Your task to perform on an android device: Open Maps and search for coffee Image 0: 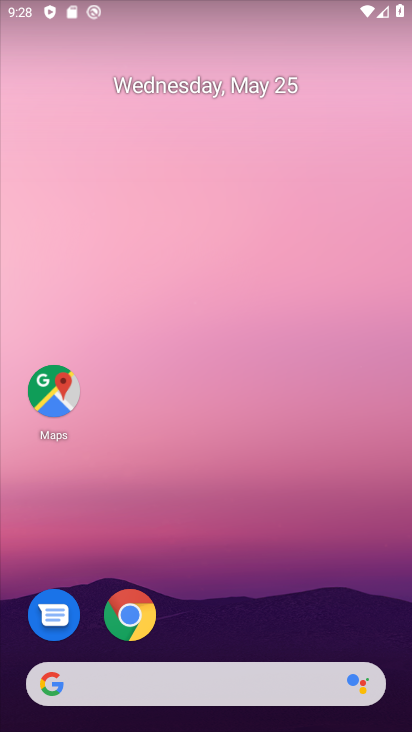
Step 0: click (37, 387)
Your task to perform on an android device: Open Maps and search for coffee Image 1: 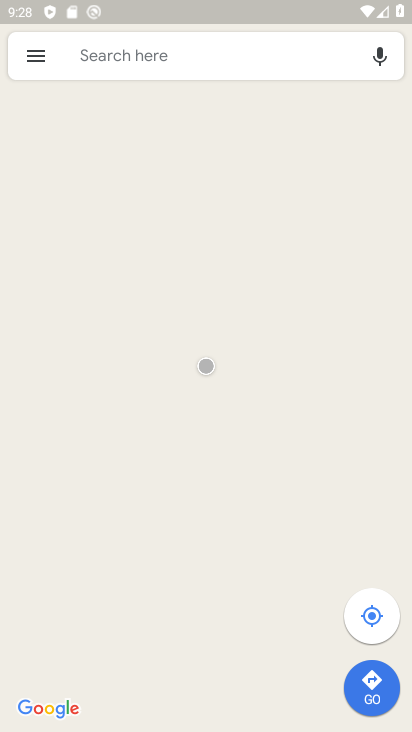
Step 1: click (180, 50)
Your task to perform on an android device: Open Maps and search for coffee Image 2: 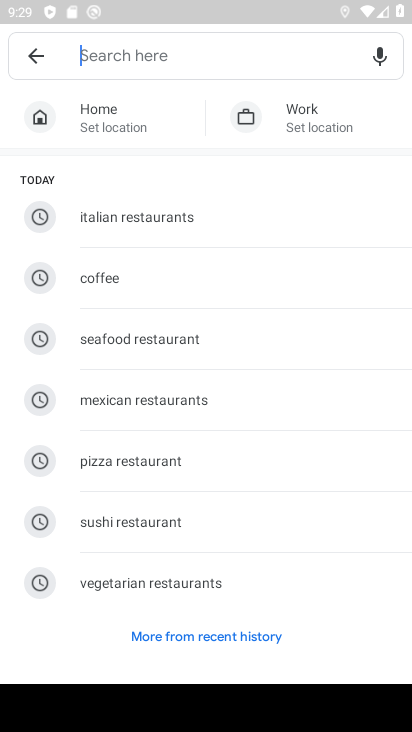
Step 2: click (144, 270)
Your task to perform on an android device: Open Maps and search for coffee Image 3: 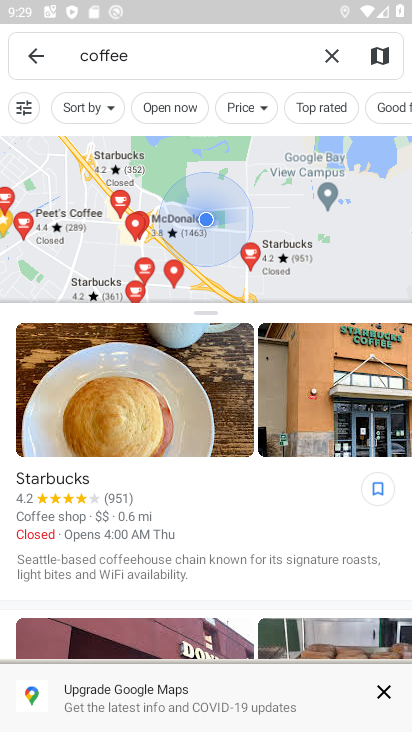
Step 3: task complete